Your task to perform on an android device: Go to Android settings Image 0: 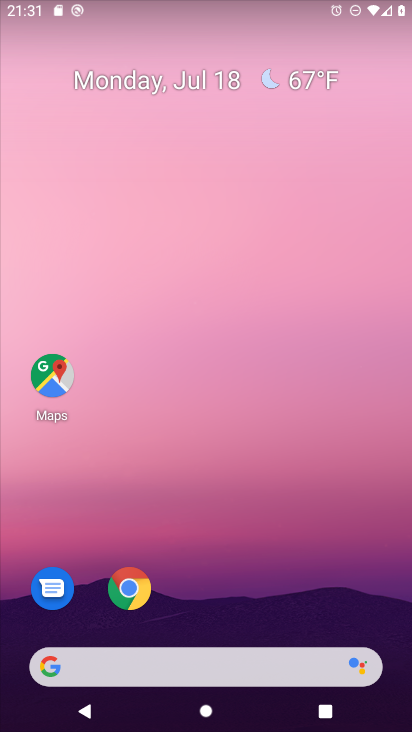
Step 0: drag from (370, 603) to (283, 181)
Your task to perform on an android device: Go to Android settings Image 1: 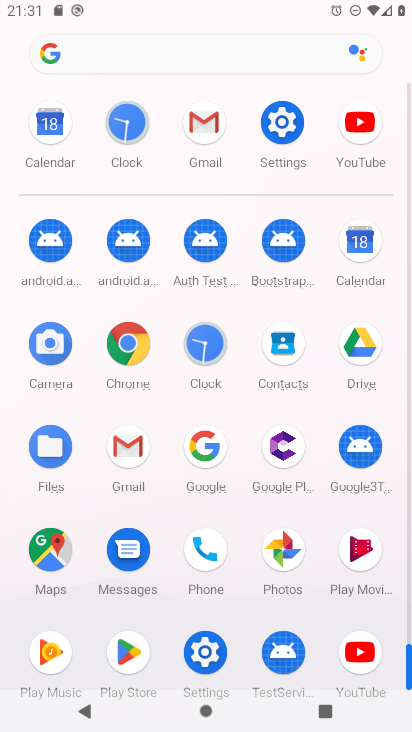
Step 1: click (206, 660)
Your task to perform on an android device: Go to Android settings Image 2: 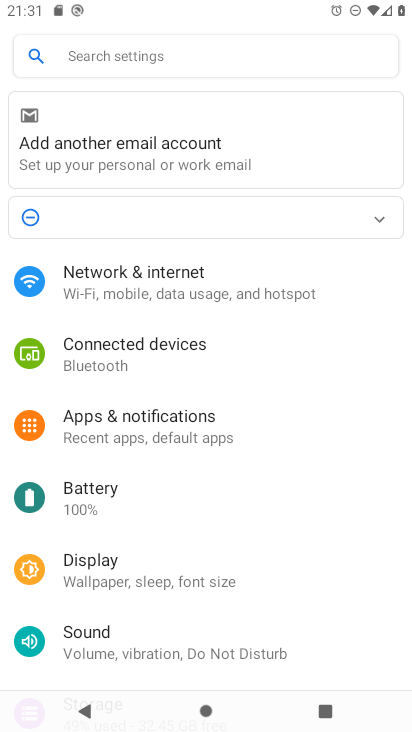
Step 2: drag from (241, 489) to (234, 272)
Your task to perform on an android device: Go to Android settings Image 3: 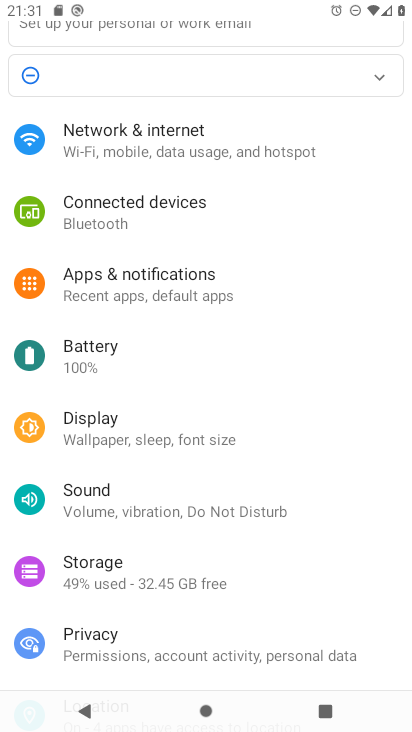
Step 3: drag from (268, 599) to (261, 135)
Your task to perform on an android device: Go to Android settings Image 4: 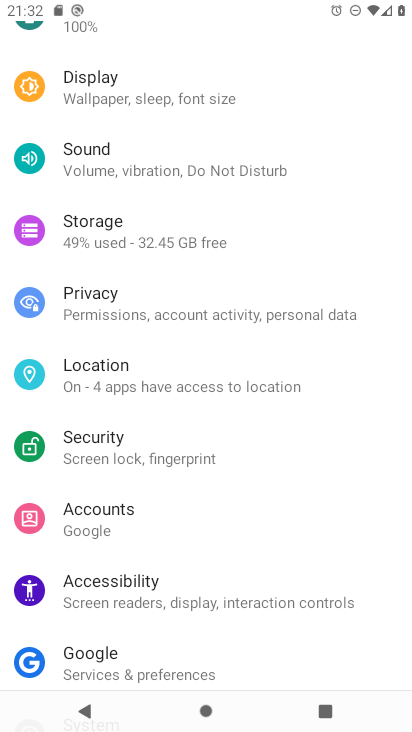
Step 4: drag from (248, 603) to (231, 211)
Your task to perform on an android device: Go to Android settings Image 5: 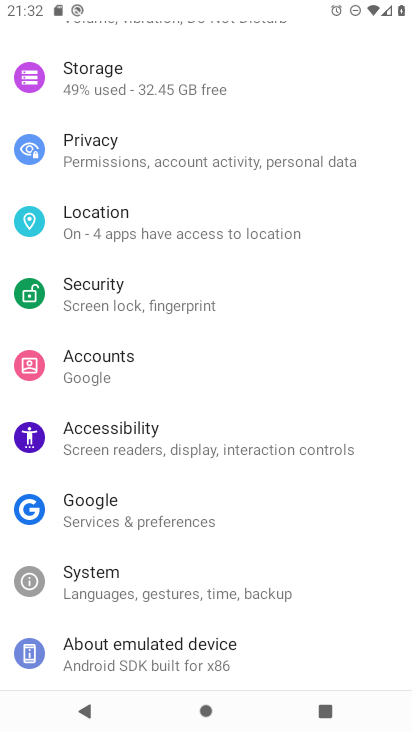
Step 5: click (154, 627)
Your task to perform on an android device: Go to Android settings Image 6: 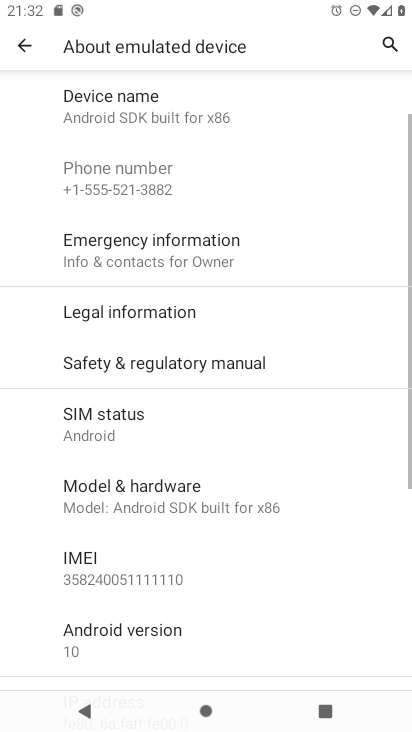
Step 6: task complete